Your task to perform on an android device: refresh tabs in the chrome app Image 0: 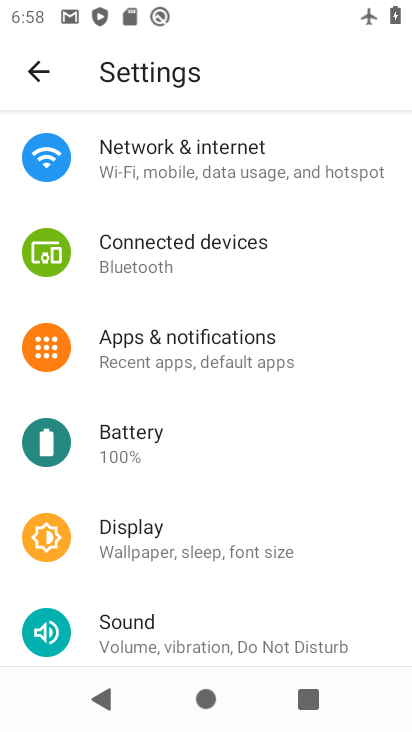
Step 0: press home button
Your task to perform on an android device: refresh tabs in the chrome app Image 1: 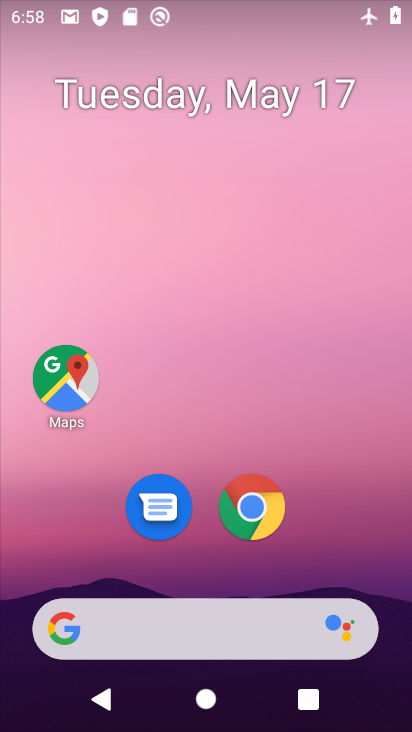
Step 1: click (263, 483)
Your task to perform on an android device: refresh tabs in the chrome app Image 2: 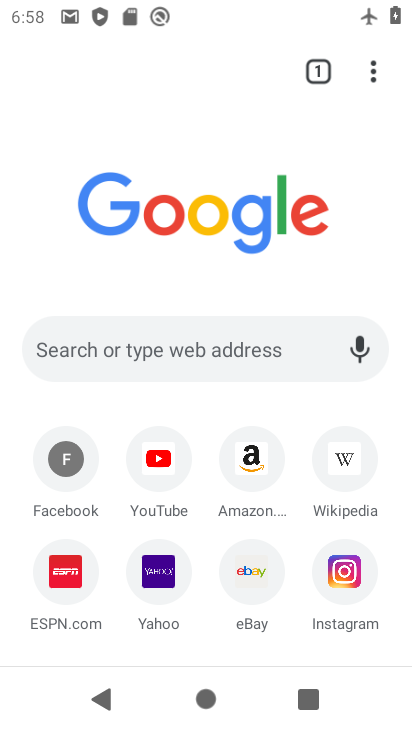
Step 2: click (372, 75)
Your task to perform on an android device: refresh tabs in the chrome app Image 3: 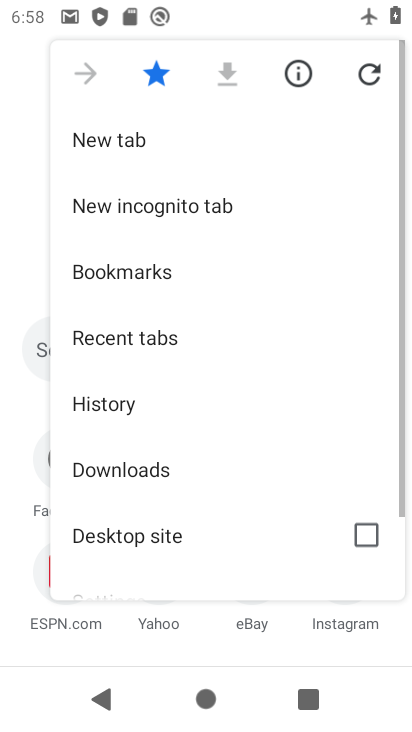
Step 3: click (371, 74)
Your task to perform on an android device: refresh tabs in the chrome app Image 4: 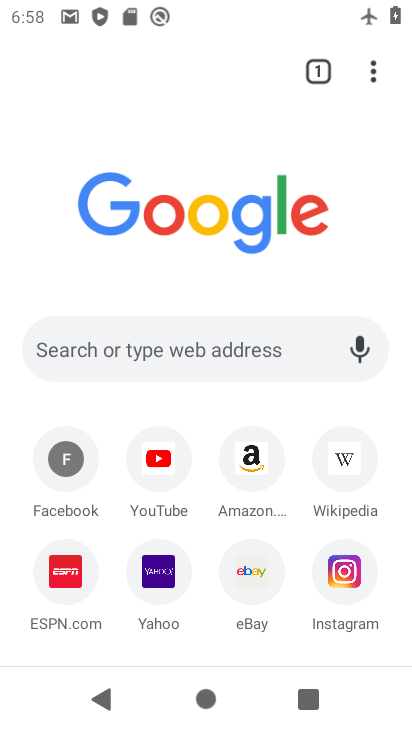
Step 4: task complete